Your task to perform on an android device: Open calendar and show me the second week of next month Image 0: 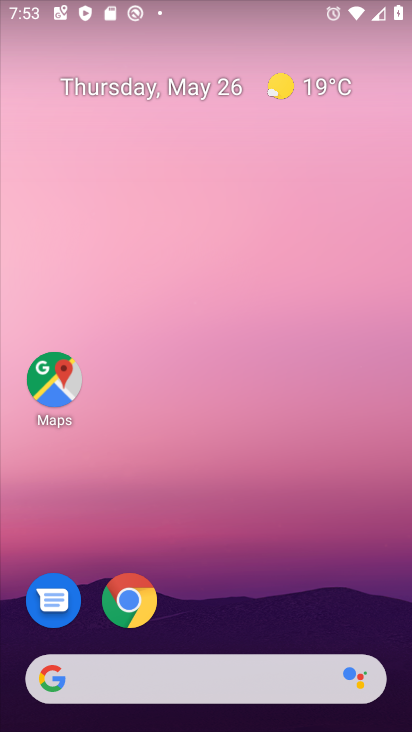
Step 0: press home button
Your task to perform on an android device: Open calendar and show me the second week of next month Image 1: 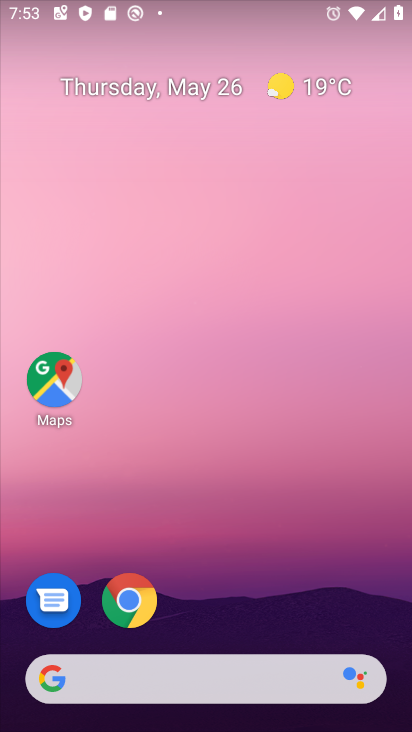
Step 1: drag from (255, 627) to (299, 203)
Your task to perform on an android device: Open calendar and show me the second week of next month Image 2: 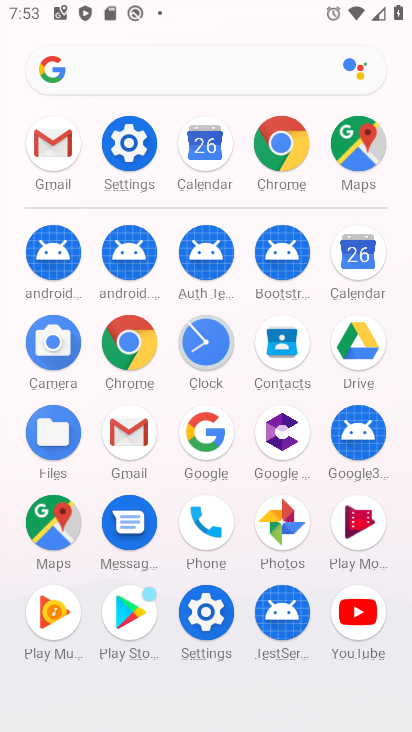
Step 2: click (354, 265)
Your task to perform on an android device: Open calendar and show me the second week of next month Image 3: 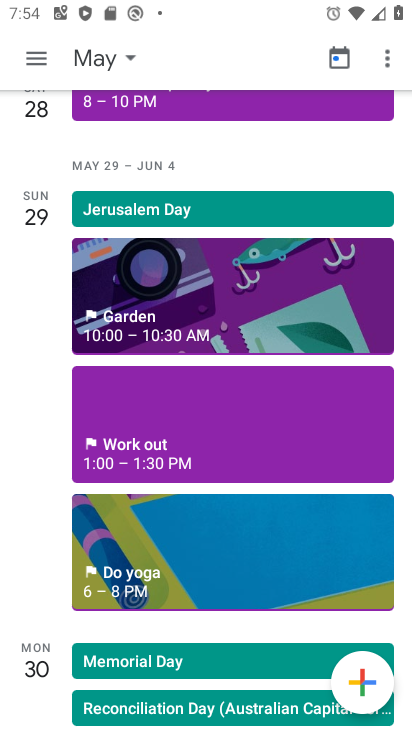
Step 3: click (132, 51)
Your task to perform on an android device: Open calendar and show me the second week of next month Image 4: 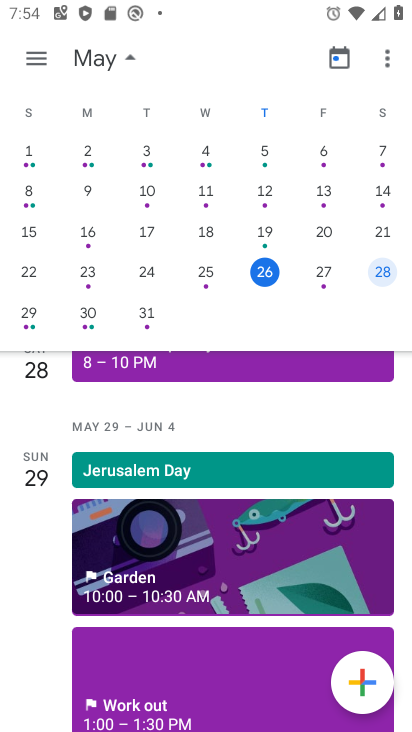
Step 4: drag from (339, 216) to (99, 207)
Your task to perform on an android device: Open calendar and show me the second week of next month Image 5: 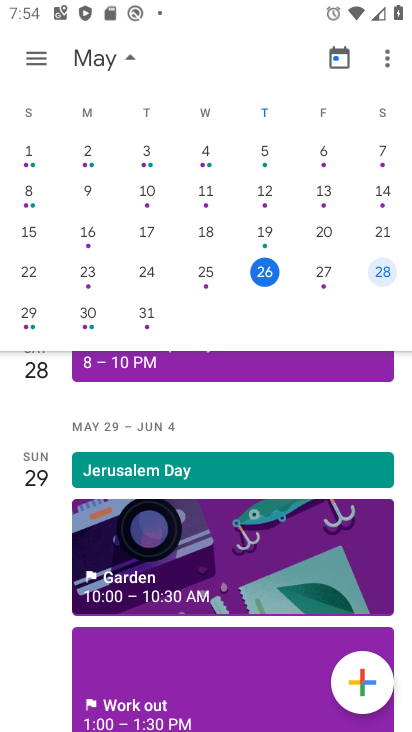
Step 5: drag from (346, 213) to (20, 218)
Your task to perform on an android device: Open calendar and show me the second week of next month Image 6: 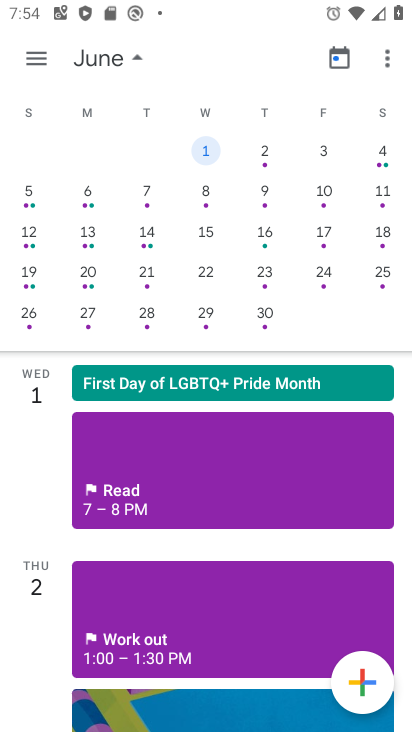
Step 6: drag from (282, 212) to (18, 192)
Your task to perform on an android device: Open calendar and show me the second week of next month Image 7: 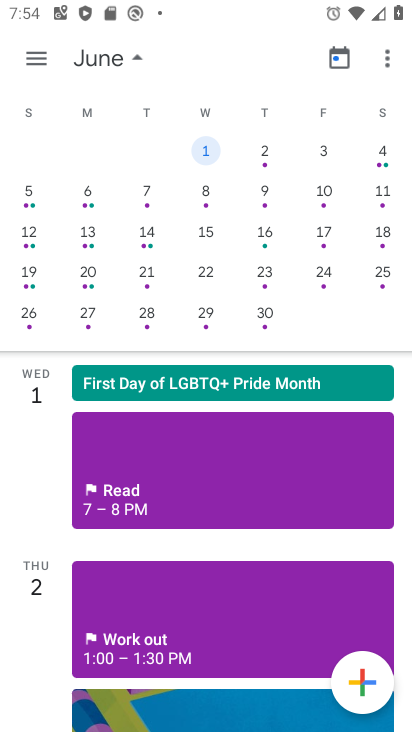
Step 7: click (204, 190)
Your task to perform on an android device: Open calendar and show me the second week of next month Image 8: 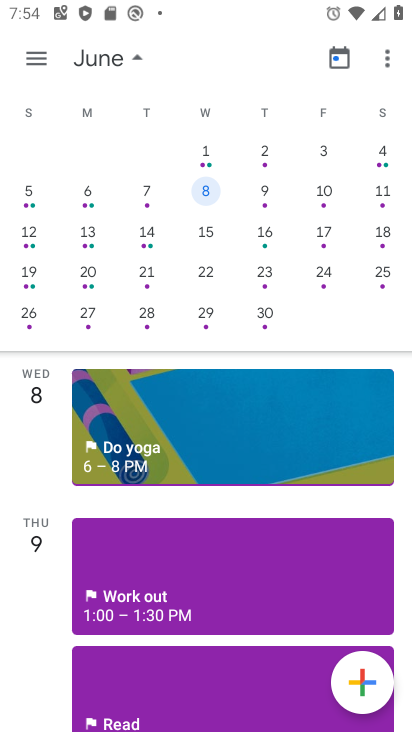
Step 8: task complete